Your task to perform on an android device: change the clock display to digital Image 0: 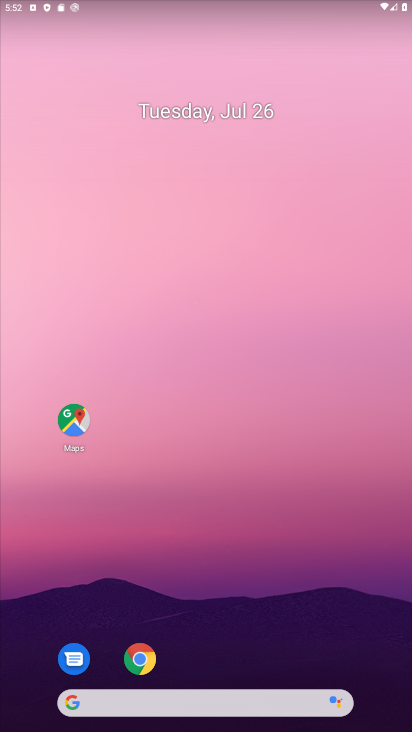
Step 0: drag from (234, 624) to (268, 263)
Your task to perform on an android device: change the clock display to digital Image 1: 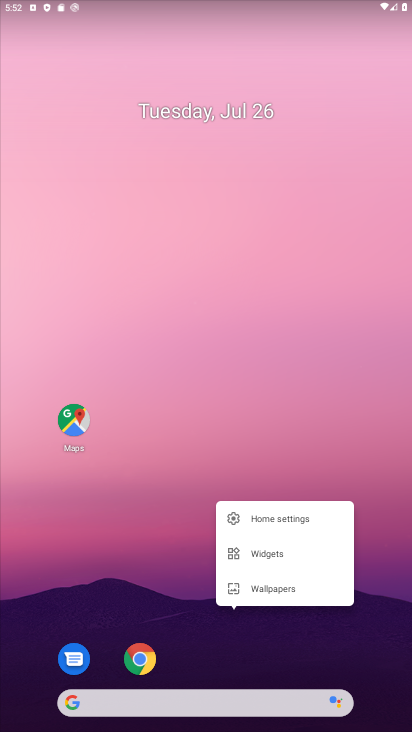
Step 1: click (167, 428)
Your task to perform on an android device: change the clock display to digital Image 2: 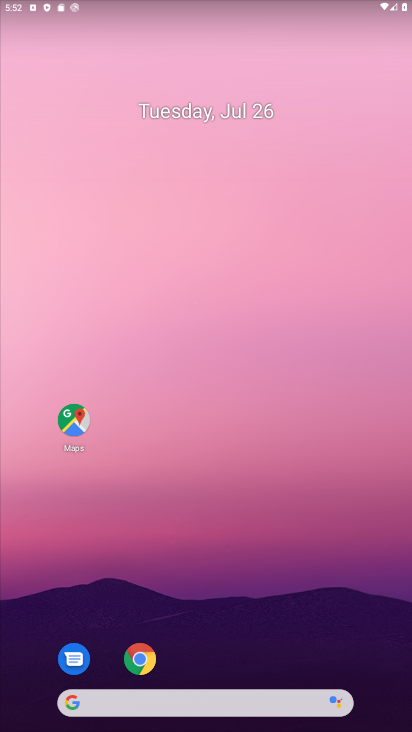
Step 2: drag from (256, 555) to (232, 252)
Your task to perform on an android device: change the clock display to digital Image 3: 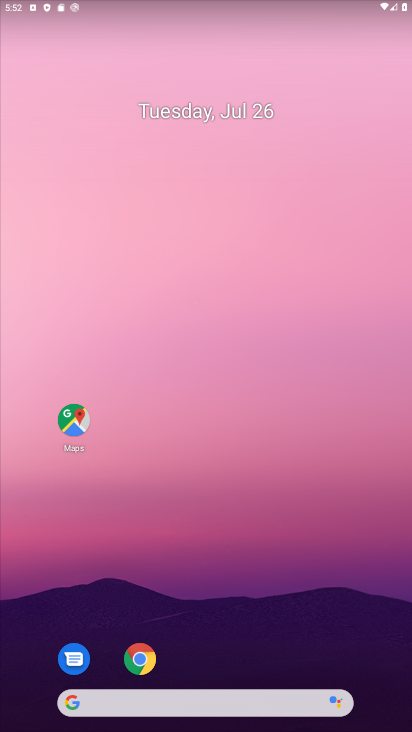
Step 3: drag from (266, 586) to (217, 29)
Your task to perform on an android device: change the clock display to digital Image 4: 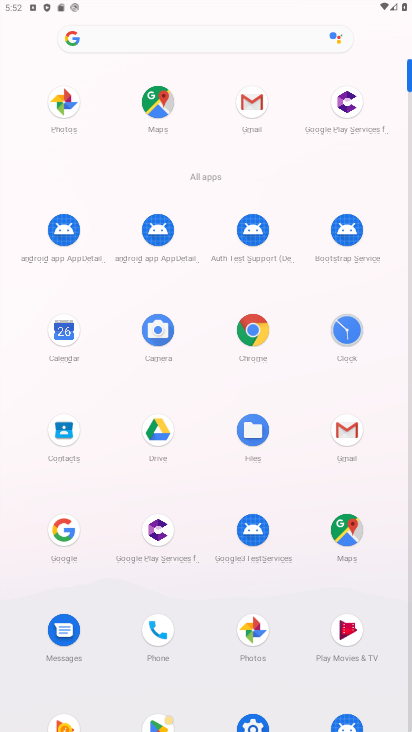
Step 4: click (353, 331)
Your task to perform on an android device: change the clock display to digital Image 5: 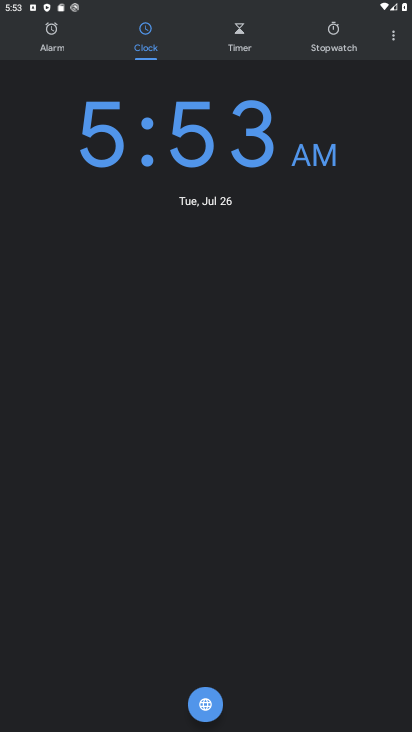
Step 5: task complete